Your task to perform on an android device: Go to Wikipedia Image 0: 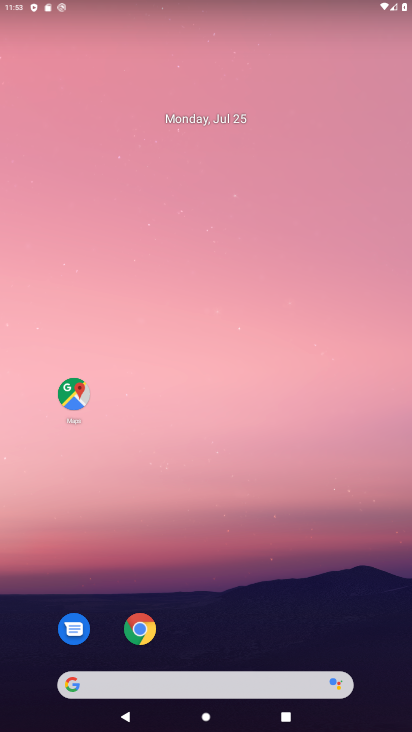
Step 0: click (290, 105)
Your task to perform on an android device: Go to Wikipedia Image 1: 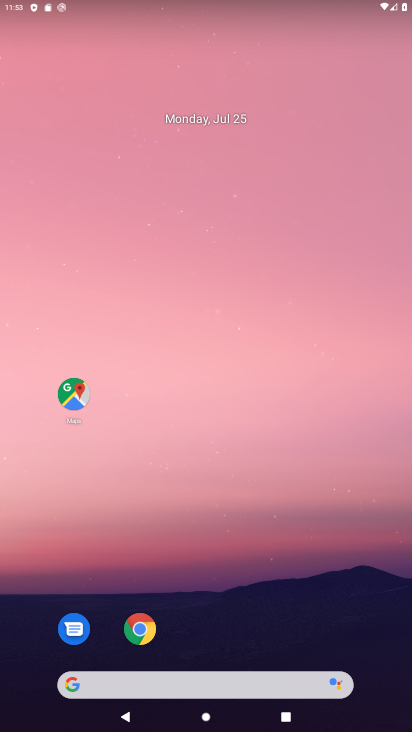
Step 1: click (223, 48)
Your task to perform on an android device: Go to Wikipedia Image 2: 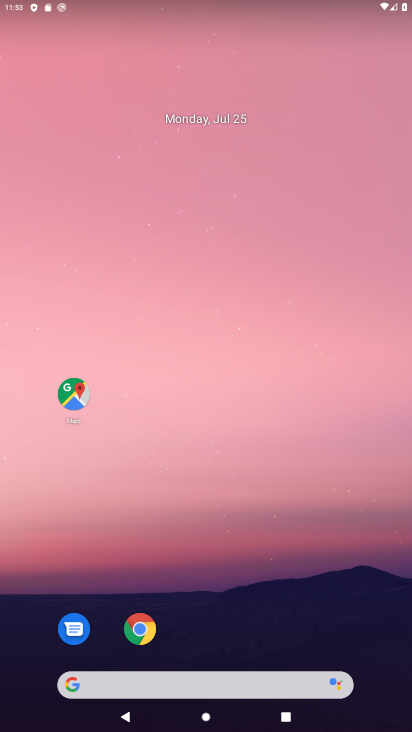
Step 2: click (208, 26)
Your task to perform on an android device: Go to Wikipedia Image 3: 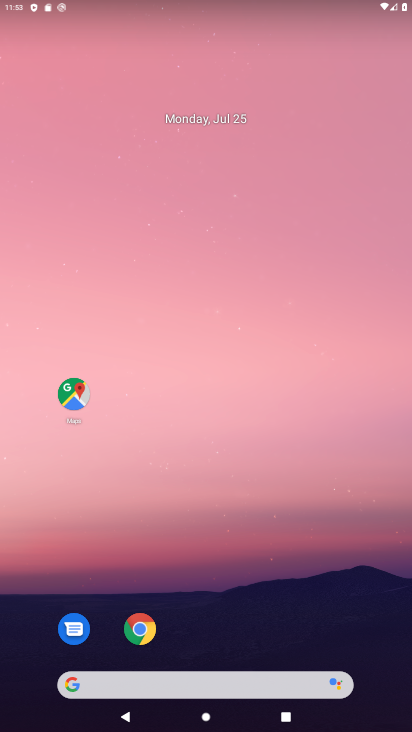
Step 3: click (259, 92)
Your task to perform on an android device: Go to Wikipedia Image 4: 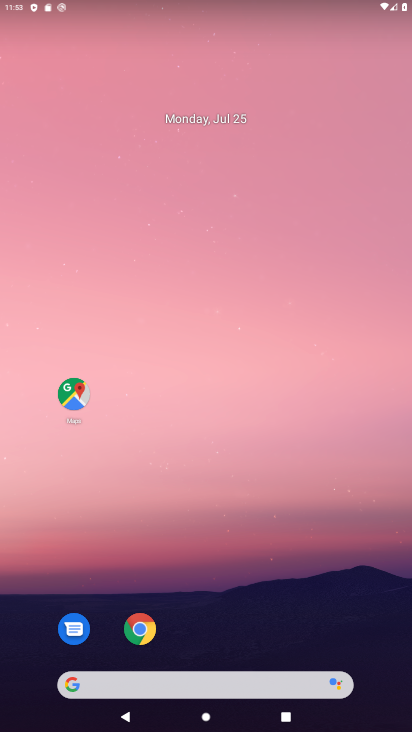
Step 4: click (313, 140)
Your task to perform on an android device: Go to Wikipedia Image 5: 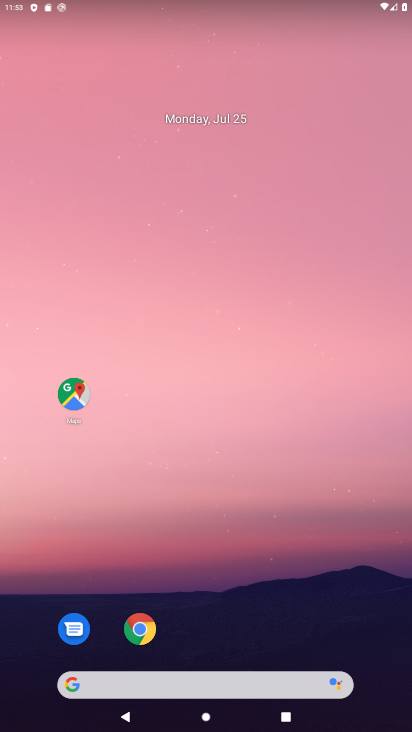
Step 5: drag from (283, 547) to (256, 247)
Your task to perform on an android device: Go to Wikipedia Image 6: 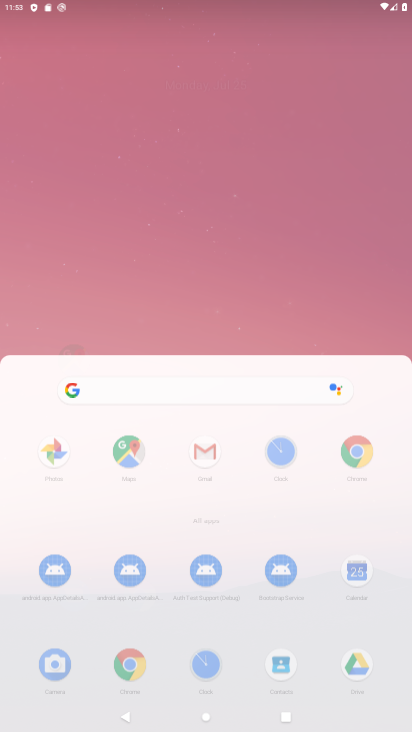
Step 6: drag from (146, 187) to (237, 350)
Your task to perform on an android device: Go to Wikipedia Image 7: 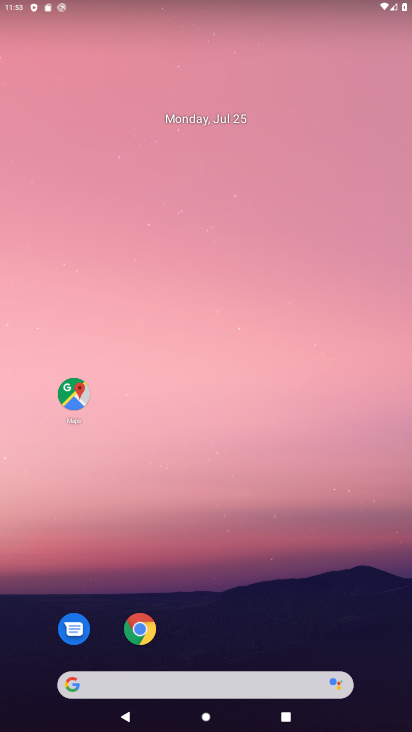
Step 7: drag from (262, 551) to (225, 32)
Your task to perform on an android device: Go to Wikipedia Image 8: 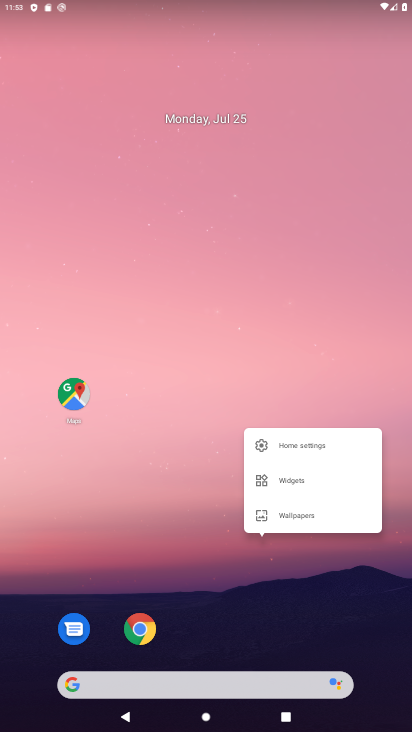
Step 8: click (214, 22)
Your task to perform on an android device: Go to Wikipedia Image 9: 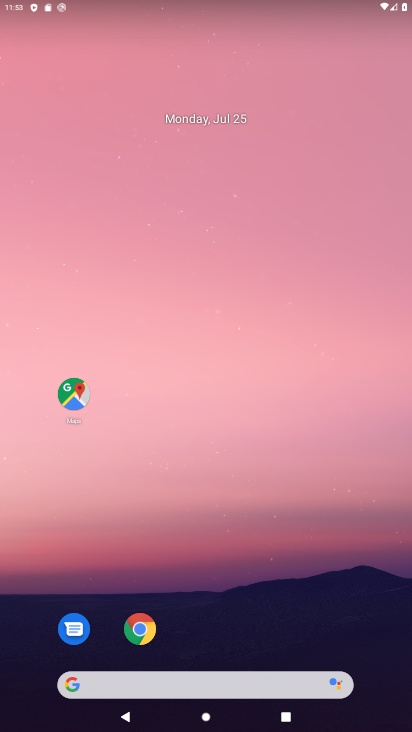
Step 9: click (285, 59)
Your task to perform on an android device: Go to Wikipedia Image 10: 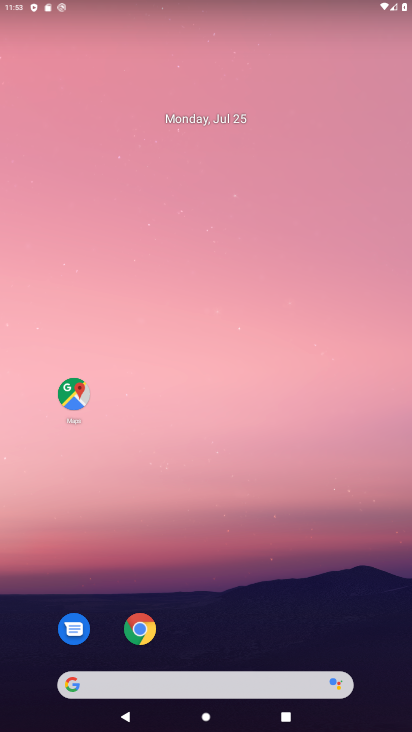
Step 10: click (334, 109)
Your task to perform on an android device: Go to Wikipedia Image 11: 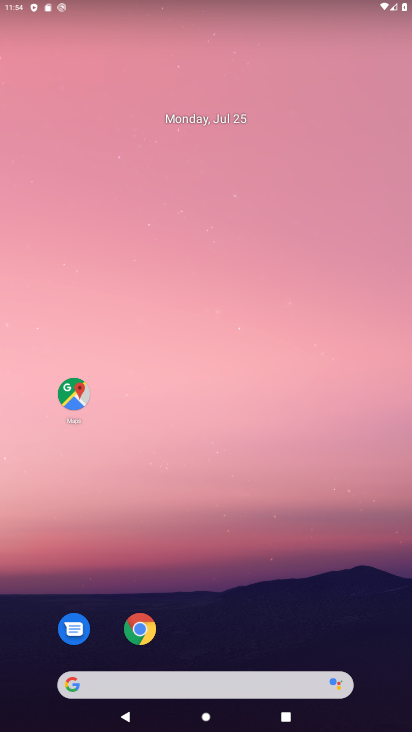
Step 11: drag from (205, 37) to (306, 143)
Your task to perform on an android device: Go to Wikipedia Image 12: 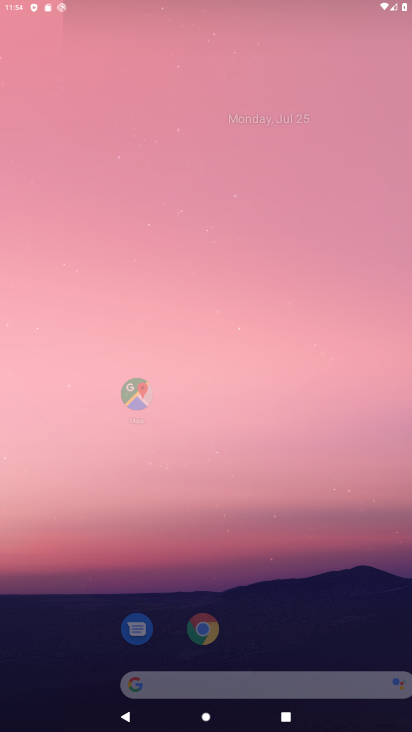
Step 12: drag from (227, 570) to (248, 87)
Your task to perform on an android device: Go to Wikipedia Image 13: 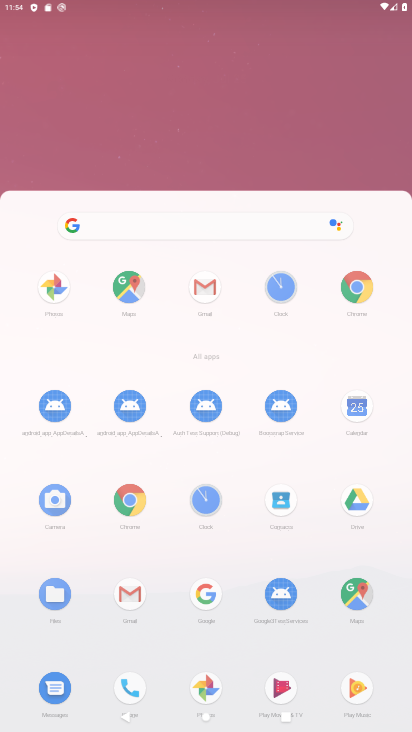
Step 13: drag from (234, 534) to (237, 24)
Your task to perform on an android device: Go to Wikipedia Image 14: 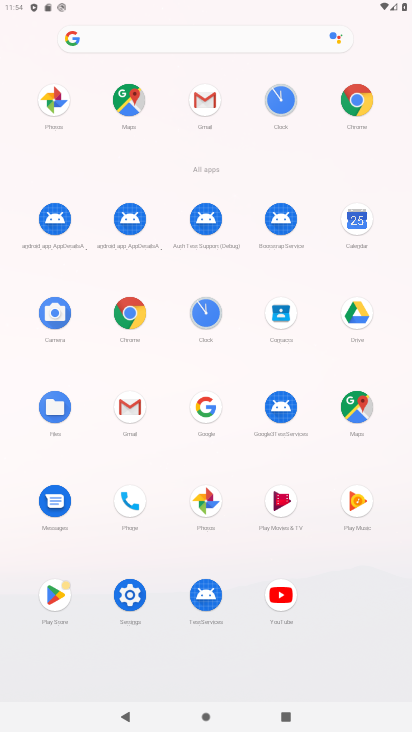
Step 14: click (356, 103)
Your task to perform on an android device: Go to Wikipedia Image 15: 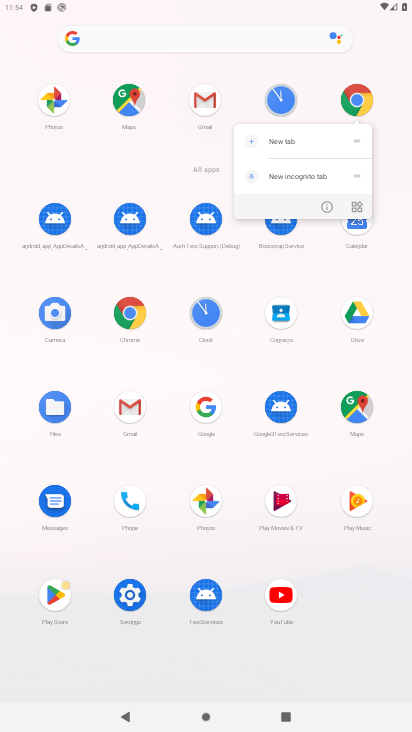
Step 15: click (347, 109)
Your task to perform on an android device: Go to Wikipedia Image 16: 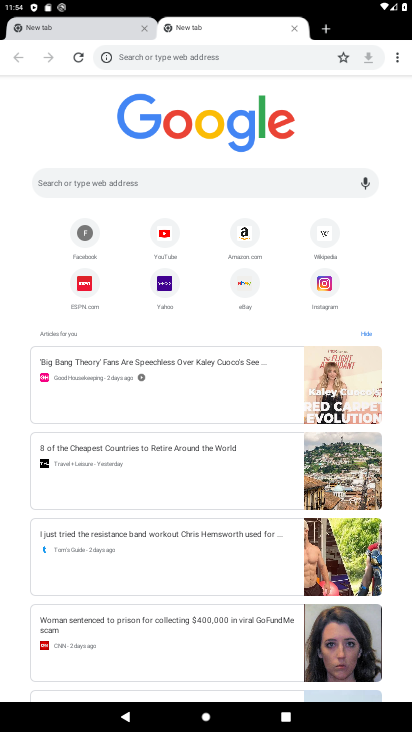
Step 16: click (319, 231)
Your task to perform on an android device: Go to Wikipedia Image 17: 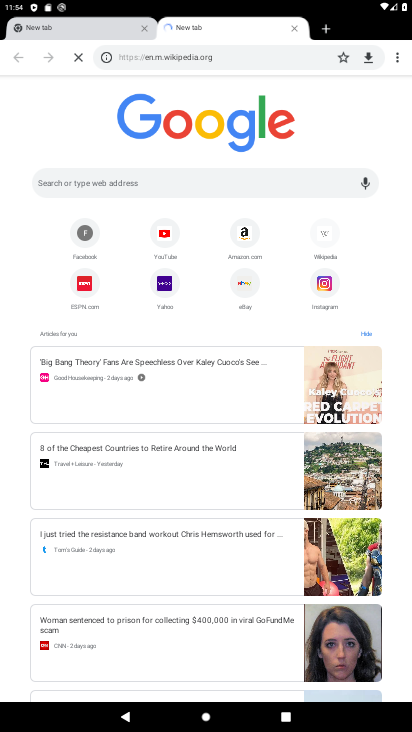
Step 17: click (325, 234)
Your task to perform on an android device: Go to Wikipedia Image 18: 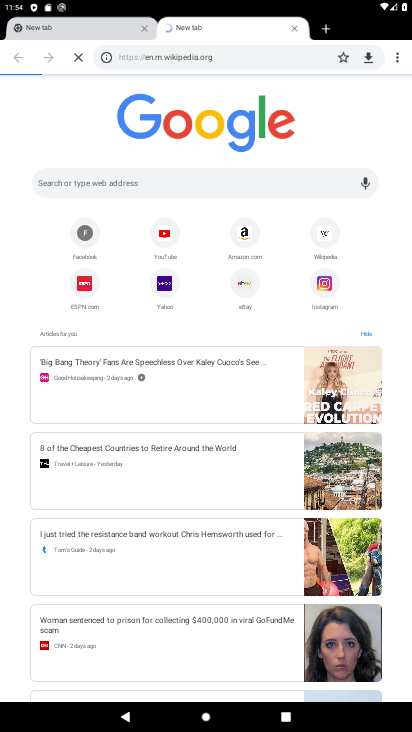
Step 18: click (325, 239)
Your task to perform on an android device: Go to Wikipedia Image 19: 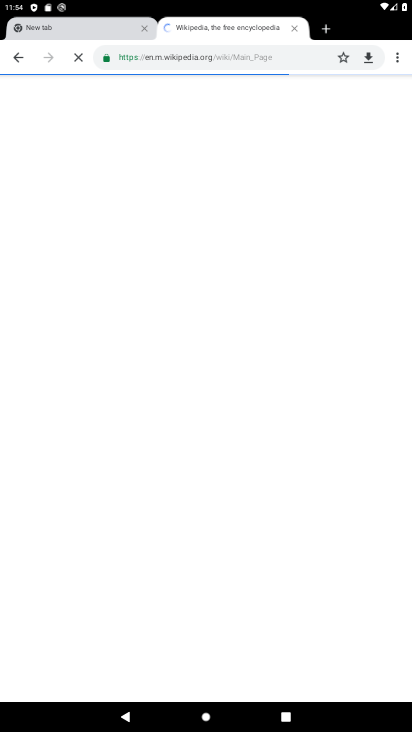
Step 19: click (325, 245)
Your task to perform on an android device: Go to Wikipedia Image 20: 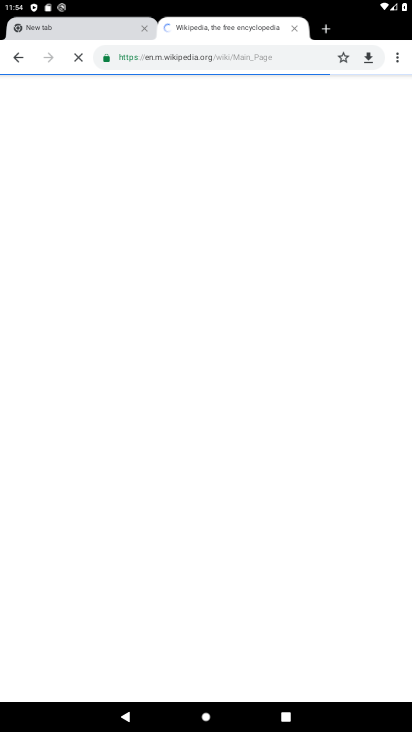
Step 20: click (326, 240)
Your task to perform on an android device: Go to Wikipedia Image 21: 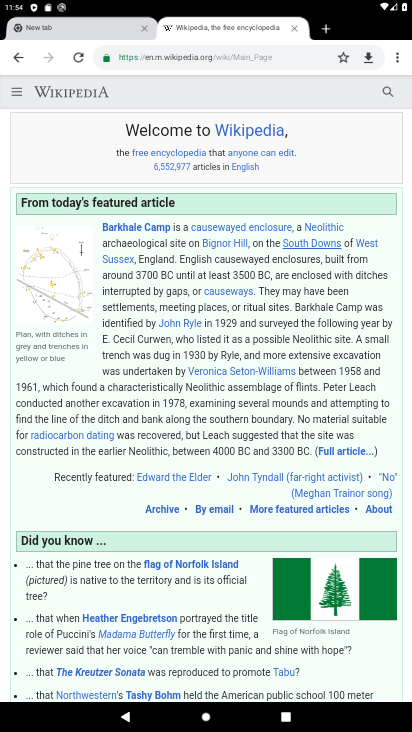
Step 21: task complete